Your task to perform on an android device: turn off location history Image 0: 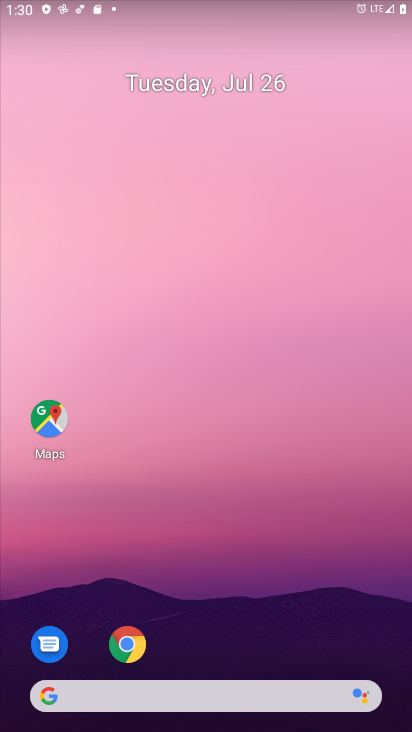
Step 0: click (51, 428)
Your task to perform on an android device: turn off location history Image 1: 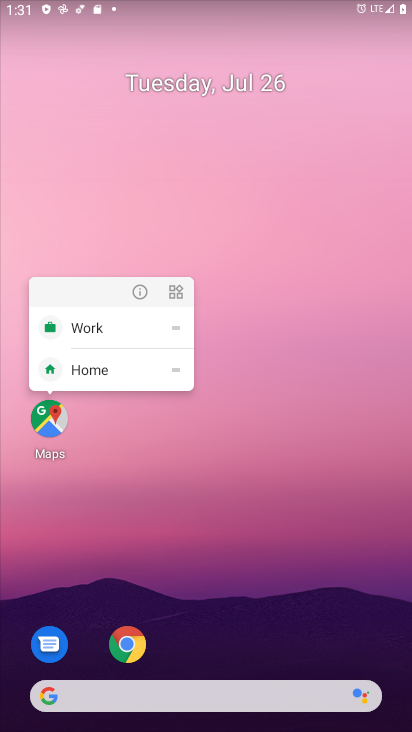
Step 1: click (51, 426)
Your task to perform on an android device: turn off location history Image 2: 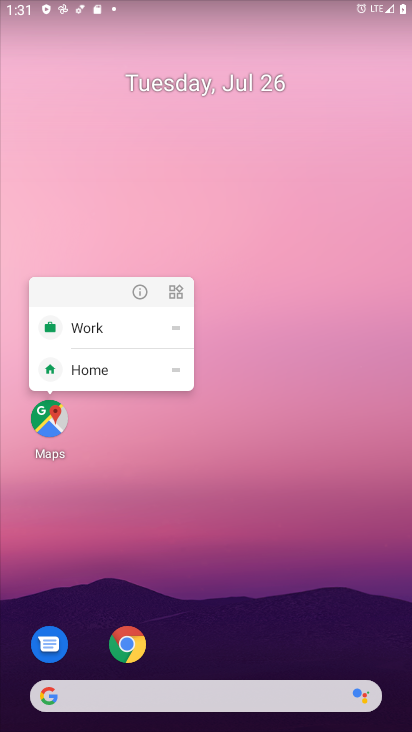
Step 2: click (51, 426)
Your task to perform on an android device: turn off location history Image 3: 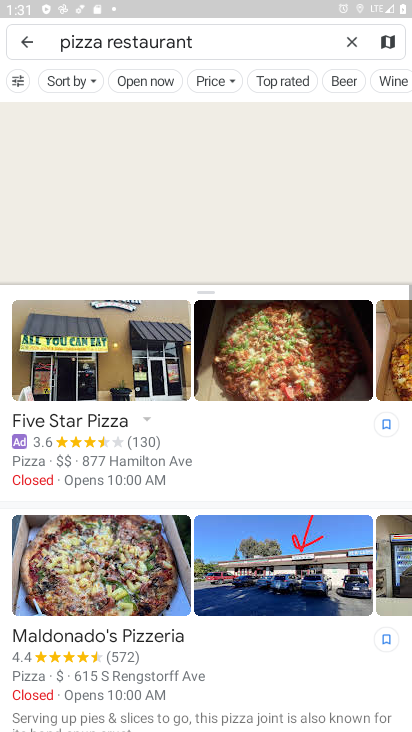
Step 3: click (24, 39)
Your task to perform on an android device: turn off location history Image 4: 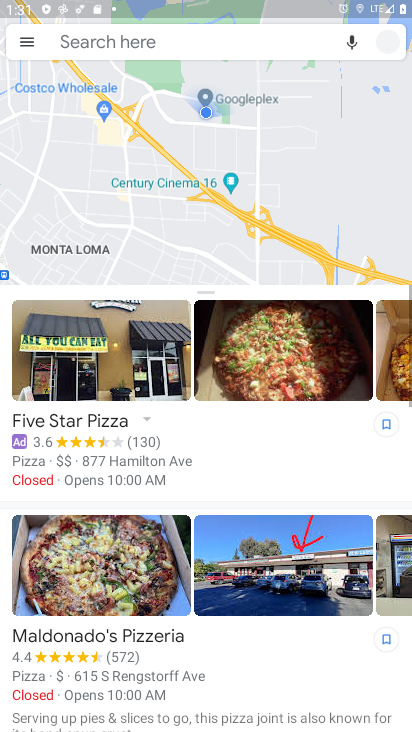
Step 4: click (26, 46)
Your task to perform on an android device: turn off location history Image 5: 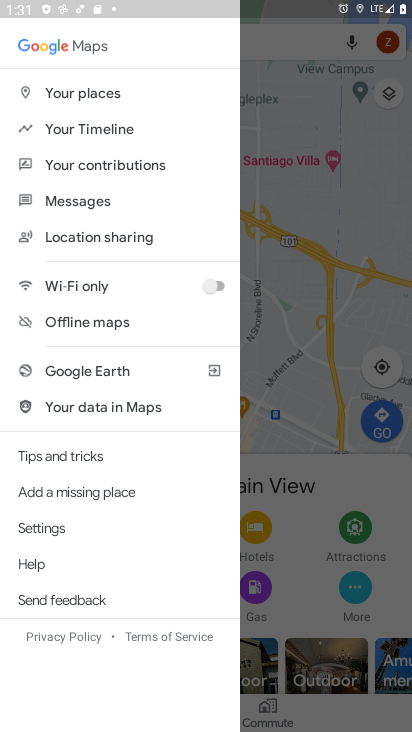
Step 5: click (76, 128)
Your task to perform on an android device: turn off location history Image 6: 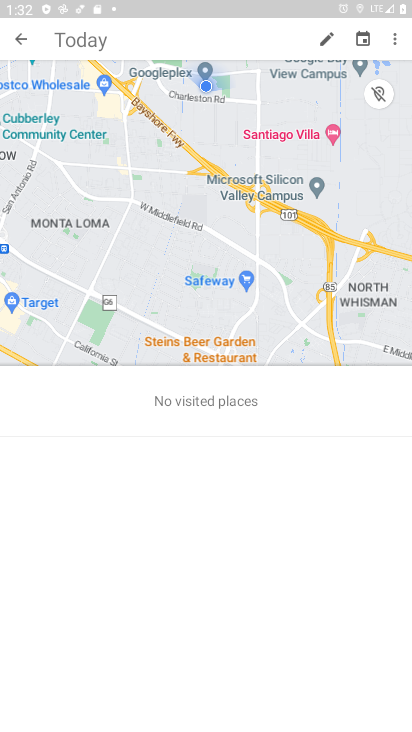
Step 6: click (396, 29)
Your task to perform on an android device: turn off location history Image 7: 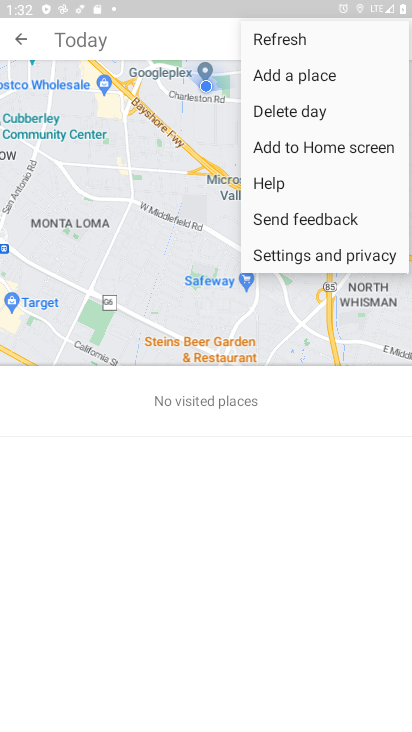
Step 7: click (276, 259)
Your task to perform on an android device: turn off location history Image 8: 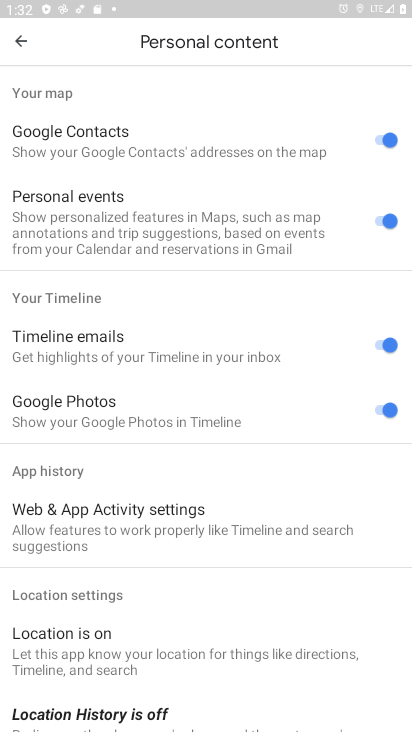
Step 8: click (137, 713)
Your task to perform on an android device: turn off location history Image 9: 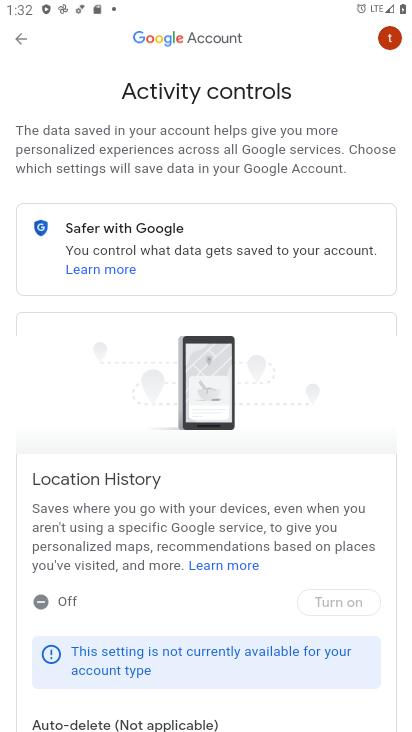
Step 9: task complete